Your task to perform on an android device: Toggle the flashlight Image 0: 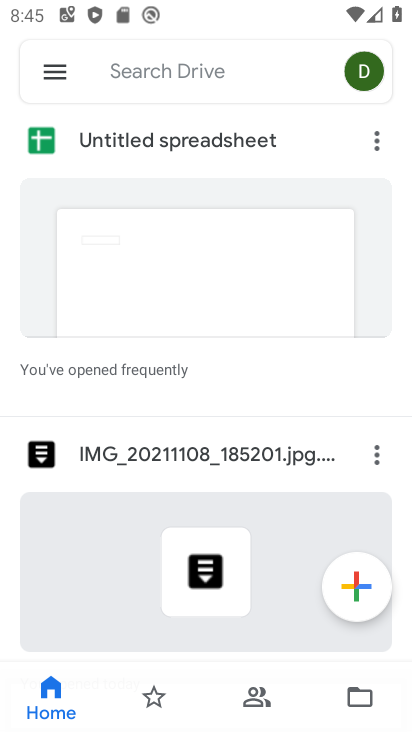
Step 0: press home button
Your task to perform on an android device: Toggle the flashlight Image 1: 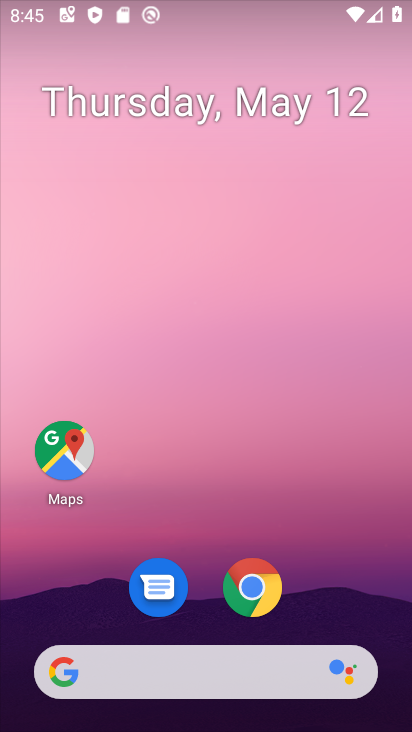
Step 1: drag from (287, 623) to (309, 336)
Your task to perform on an android device: Toggle the flashlight Image 2: 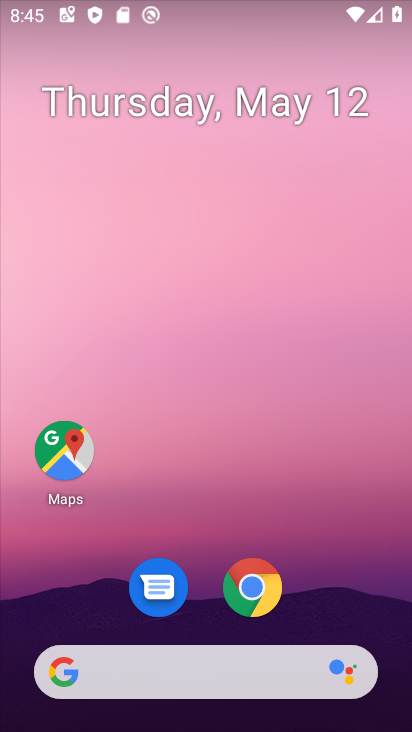
Step 2: drag from (321, 475) to (341, 273)
Your task to perform on an android device: Toggle the flashlight Image 3: 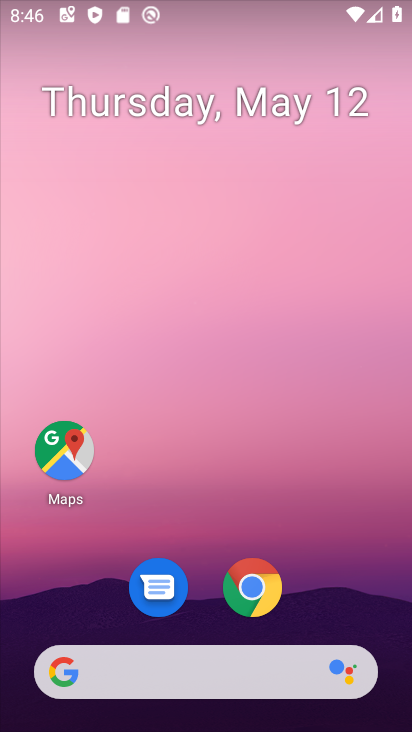
Step 3: drag from (265, 685) to (306, 290)
Your task to perform on an android device: Toggle the flashlight Image 4: 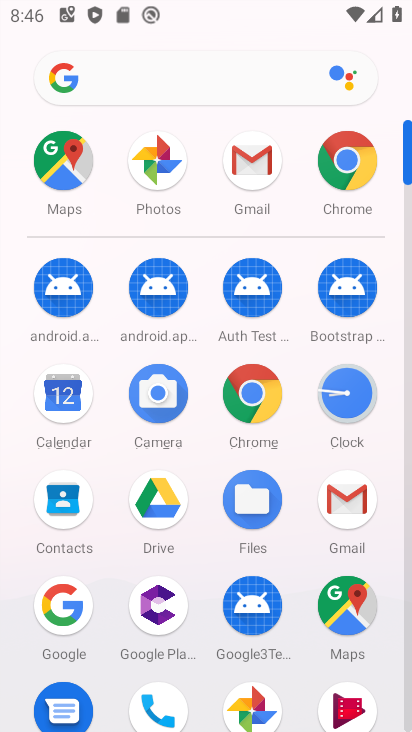
Step 4: drag from (201, 575) to (229, 269)
Your task to perform on an android device: Toggle the flashlight Image 5: 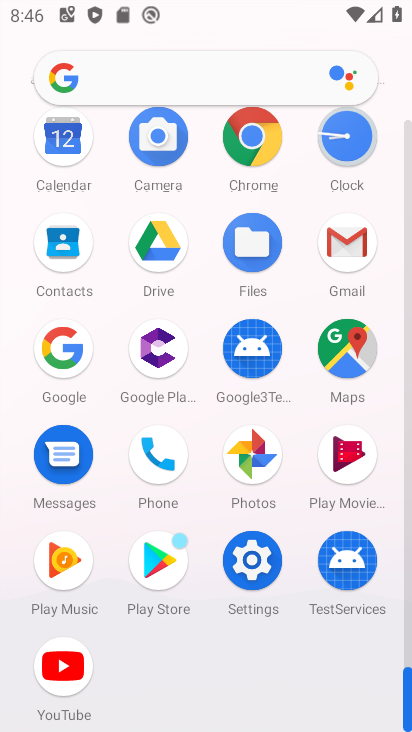
Step 5: click (250, 564)
Your task to perform on an android device: Toggle the flashlight Image 6: 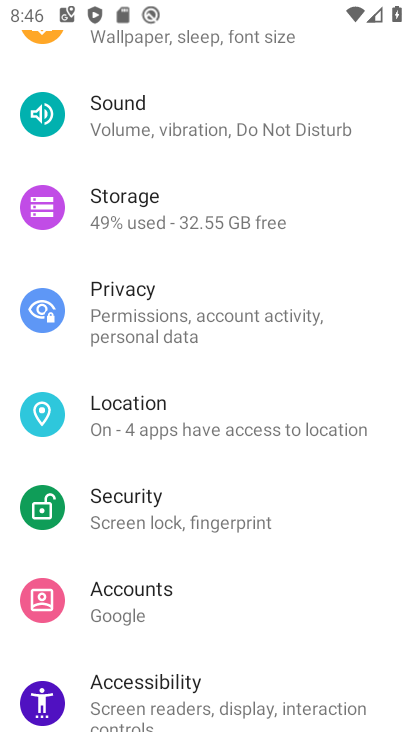
Step 6: task complete